Your task to perform on an android device: change notification settings in the gmail app Image 0: 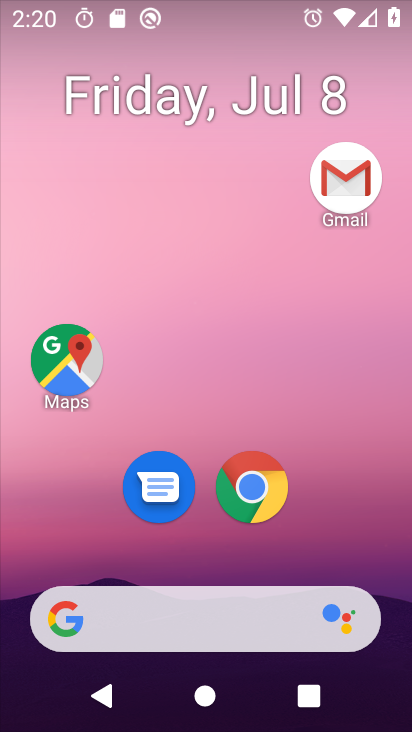
Step 0: drag from (343, 555) to (379, 156)
Your task to perform on an android device: change notification settings in the gmail app Image 1: 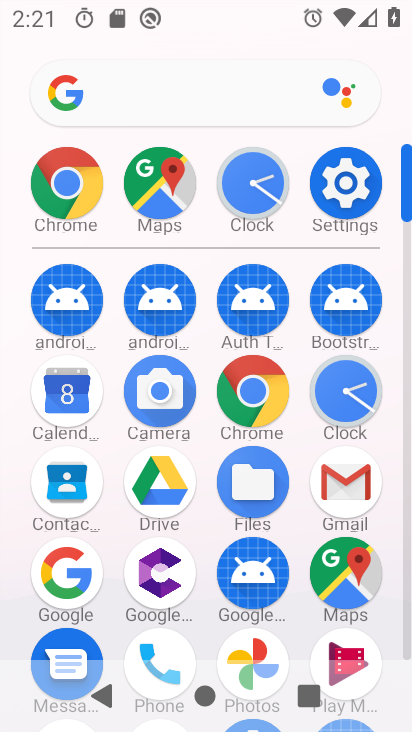
Step 1: click (358, 482)
Your task to perform on an android device: change notification settings in the gmail app Image 2: 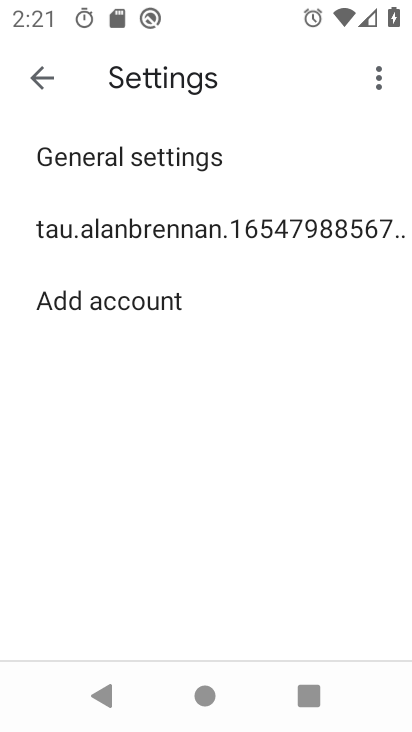
Step 2: press back button
Your task to perform on an android device: change notification settings in the gmail app Image 3: 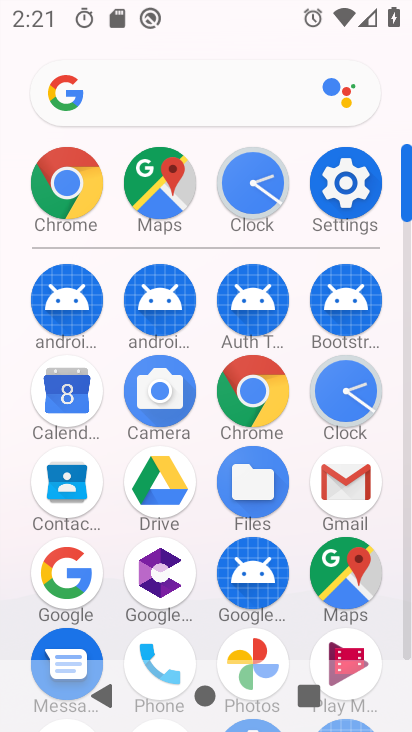
Step 3: click (359, 488)
Your task to perform on an android device: change notification settings in the gmail app Image 4: 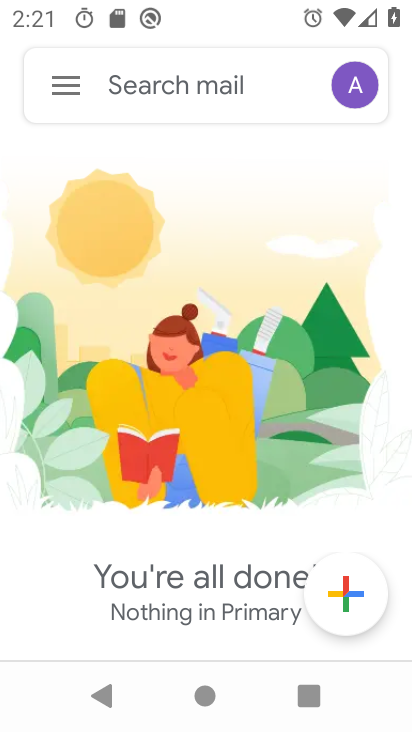
Step 4: click (65, 97)
Your task to perform on an android device: change notification settings in the gmail app Image 5: 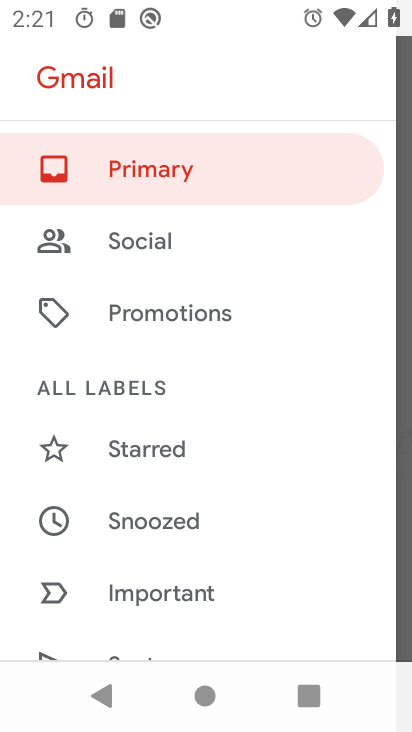
Step 5: drag from (322, 531) to (330, 341)
Your task to perform on an android device: change notification settings in the gmail app Image 6: 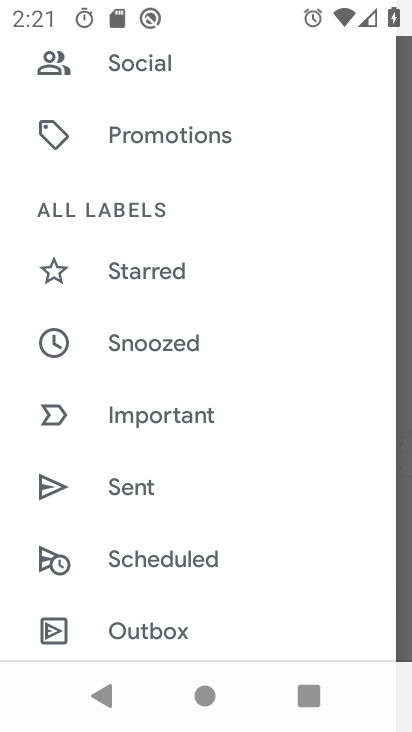
Step 6: drag from (315, 512) to (314, 353)
Your task to perform on an android device: change notification settings in the gmail app Image 7: 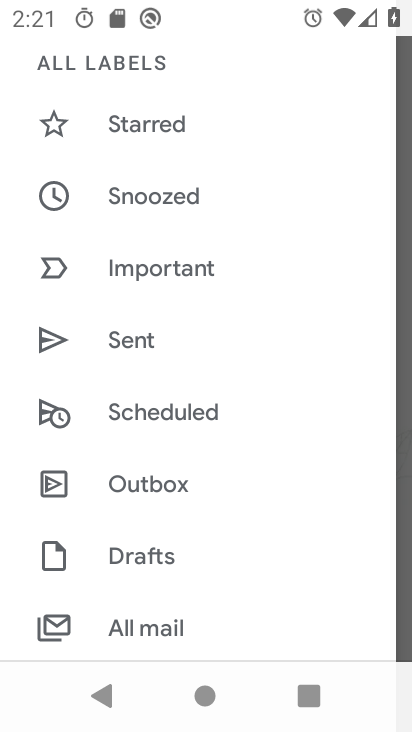
Step 7: drag from (290, 564) to (302, 411)
Your task to perform on an android device: change notification settings in the gmail app Image 8: 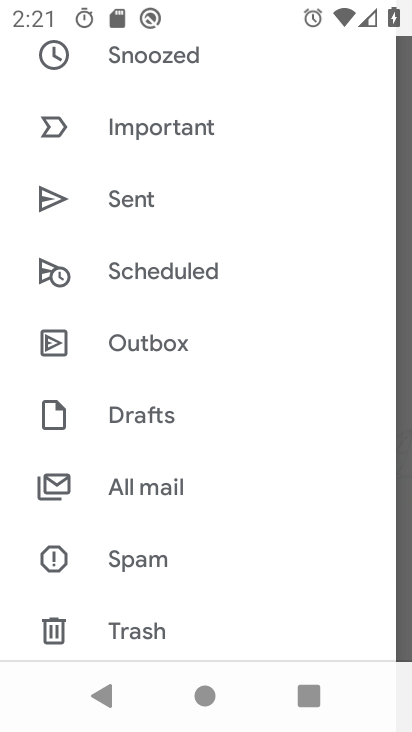
Step 8: drag from (275, 563) to (282, 407)
Your task to perform on an android device: change notification settings in the gmail app Image 9: 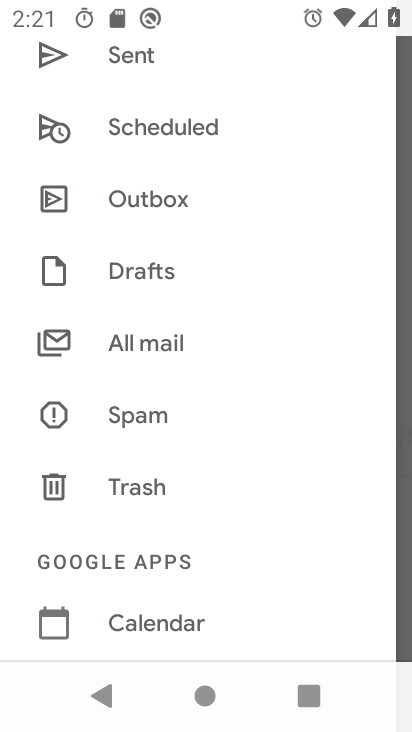
Step 9: drag from (309, 594) to (304, 458)
Your task to perform on an android device: change notification settings in the gmail app Image 10: 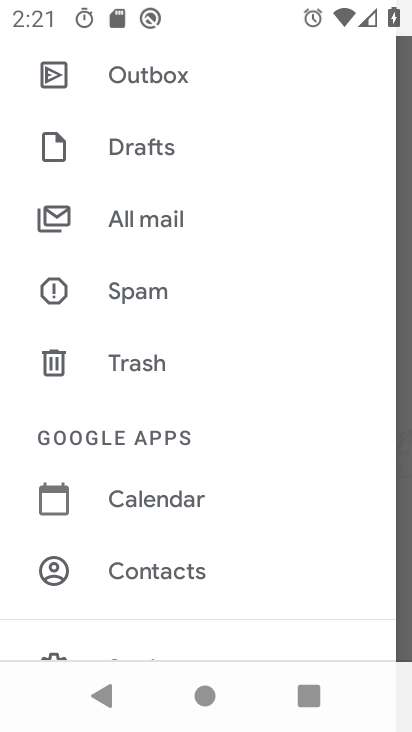
Step 10: drag from (298, 567) to (308, 415)
Your task to perform on an android device: change notification settings in the gmail app Image 11: 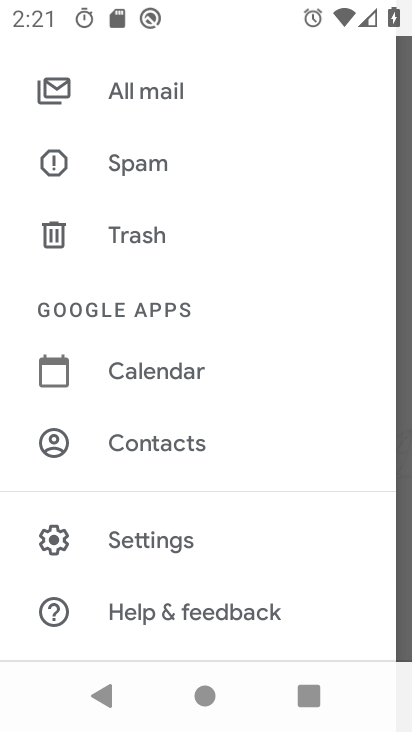
Step 11: click (205, 541)
Your task to perform on an android device: change notification settings in the gmail app Image 12: 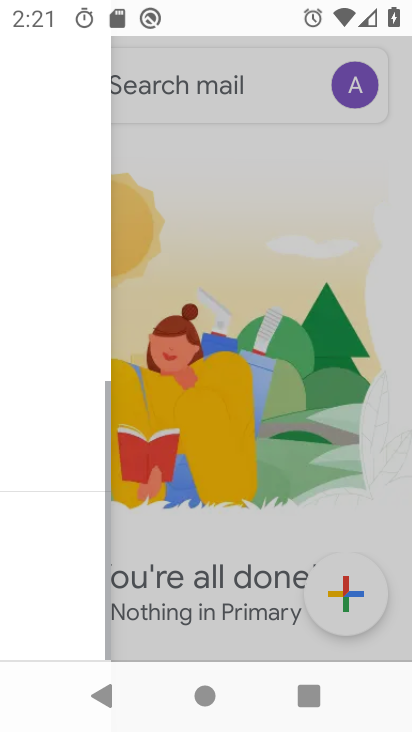
Step 12: click (205, 541)
Your task to perform on an android device: change notification settings in the gmail app Image 13: 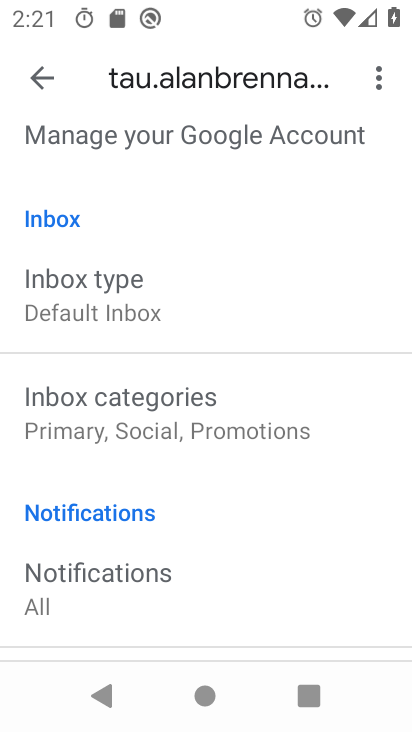
Step 13: drag from (338, 556) to (358, 420)
Your task to perform on an android device: change notification settings in the gmail app Image 14: 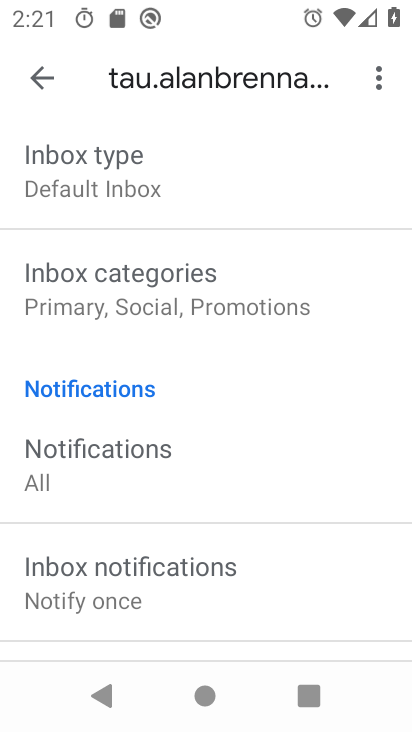
Step 14: drag from (322, 562) to (331, 434)
Your task to perform on an android device: change notification settings in the gmail app Image 15: 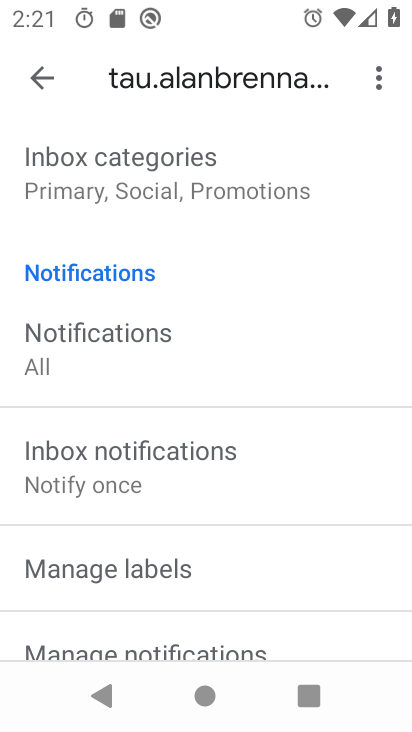
Step 15: drag from (323, 576) to (330, 430)
Your task to perform on an android device: change notification settings in the gmail app Image 16: 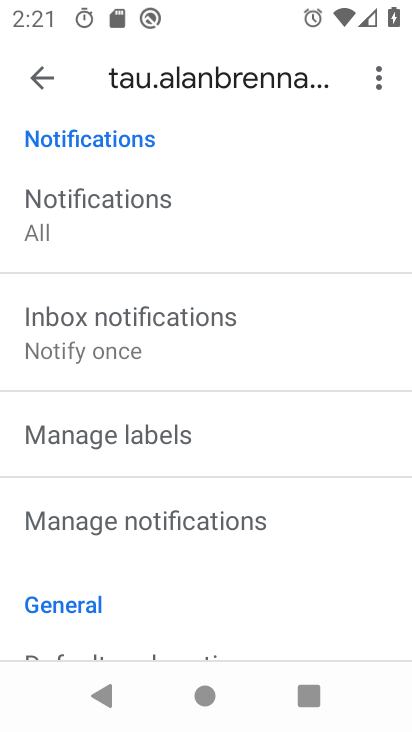
Step 16: drag from (342, 562) to (338, 428)
Your task to perform on an android device: change notification settings in the gmail app Image 17: 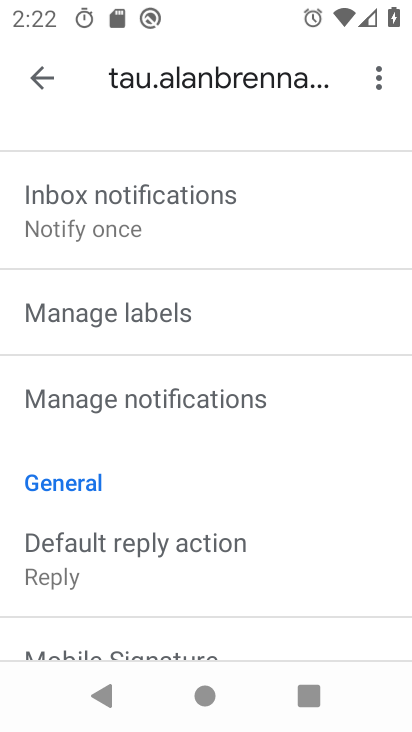
Step 17: drag from (342, 554) to (340, 442)
Your task to perform on an android device: change notification settings in the gmail app Image 18: 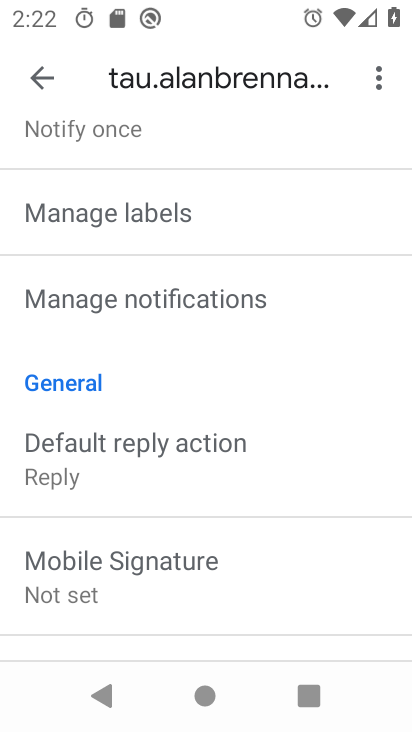
Step 18: drag from (328, 582) to (332, 445)
Your task to perform on an android device: change notification settings in the gmail app Image 19: 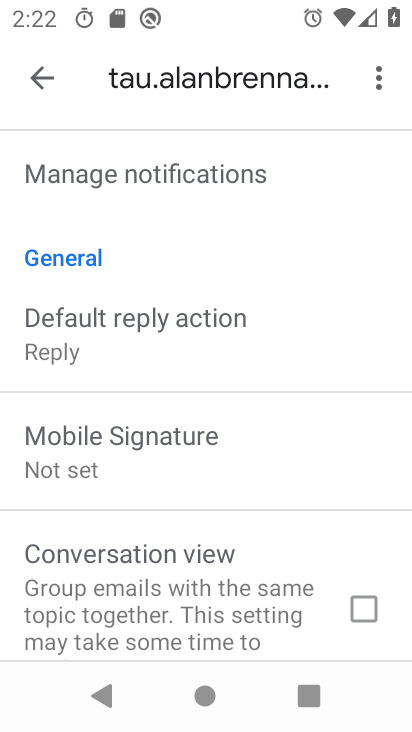
Step 19: drag from (342, 295) to (338, 425)
Your task to perform on an android device: change notification settings in the gmail app Image 20: 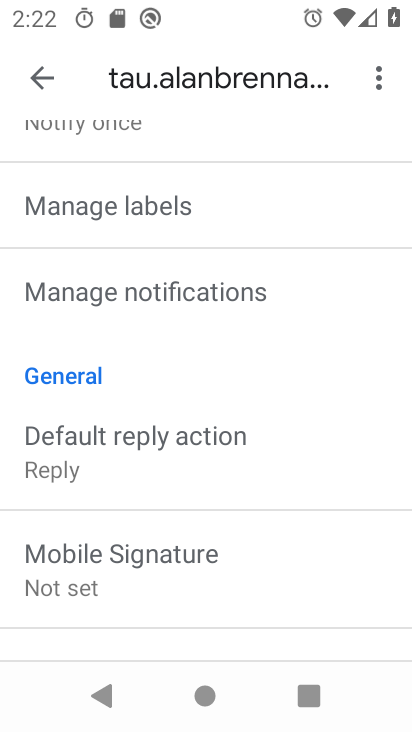
Step 20: drag from (330, 249) to (332, 429)
Your task to perform on an android device: change notification settings in the gmail app Image 21: 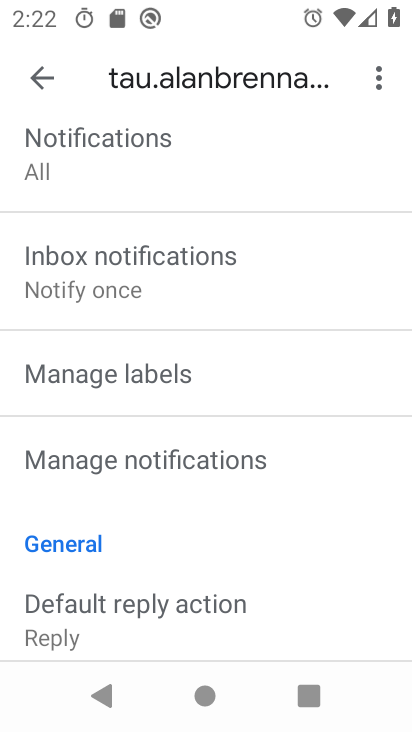
Step 21: click (260, 457)
Your task to perform on an android device: change notification settings in the gmail app Image 22: 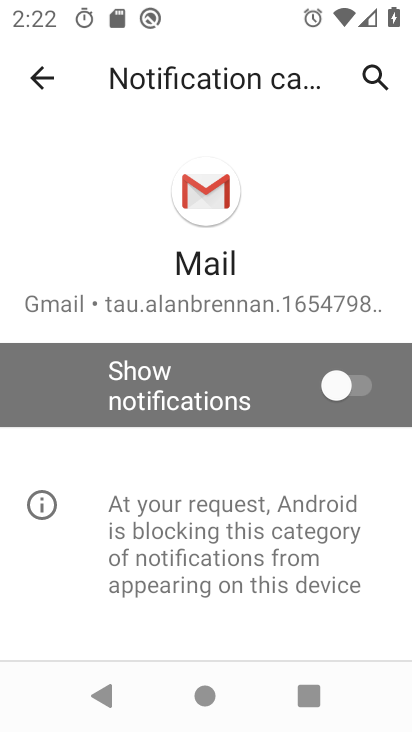
Step 22: click (346, 380)
Your task to perform on an android device: change notification settings in the gmail app Image 23: 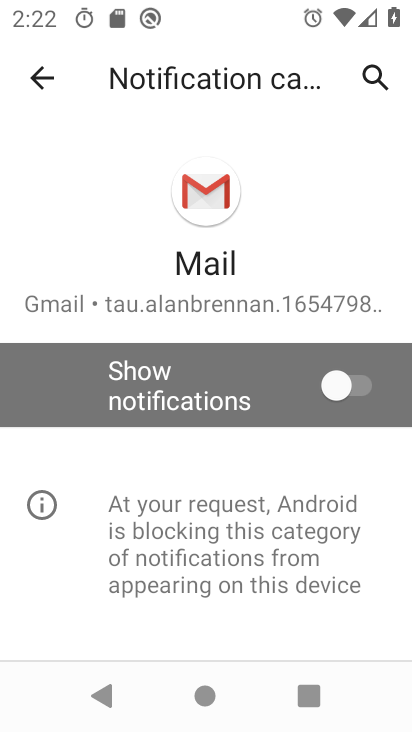
Step 23: task complete